Your task to perform on an android device: Go to sound settings Image 0: 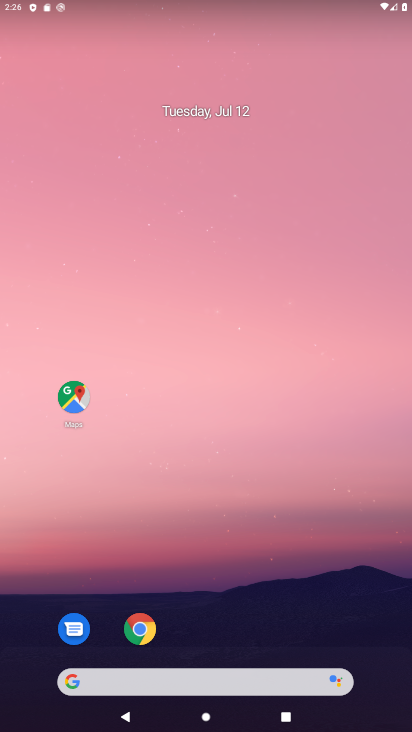
Step 0: drag from (210, 637) to (246, 143)
Your task to perform on an android device: Go to sound settings Image 1: 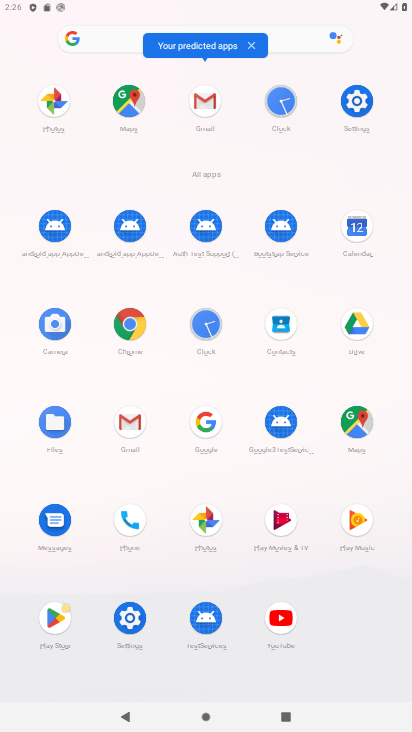
Step 1: click (358, 101)
Your task to perform on an android device: Go to sound settings Image 2: 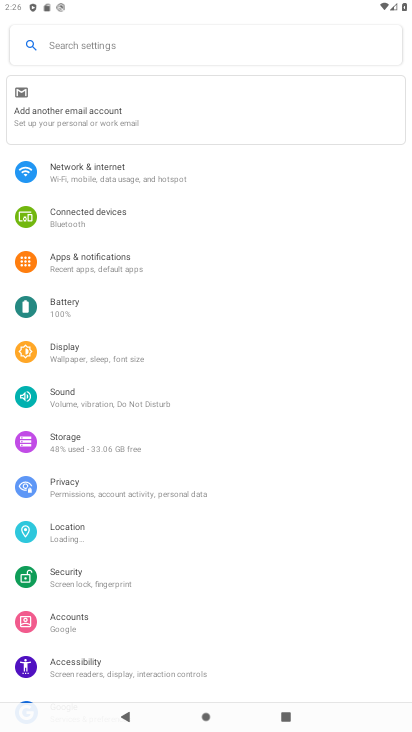
Step 2: click (92, 396)
Your task to perform on an android device: Go to sound settings Image 3: 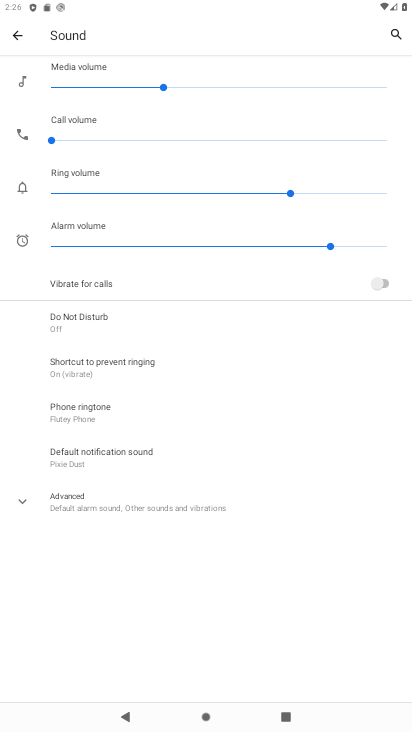
Step 3: task complete